Your task to perform on an android device: see tabs open on other devices in the chrome app Image 0: 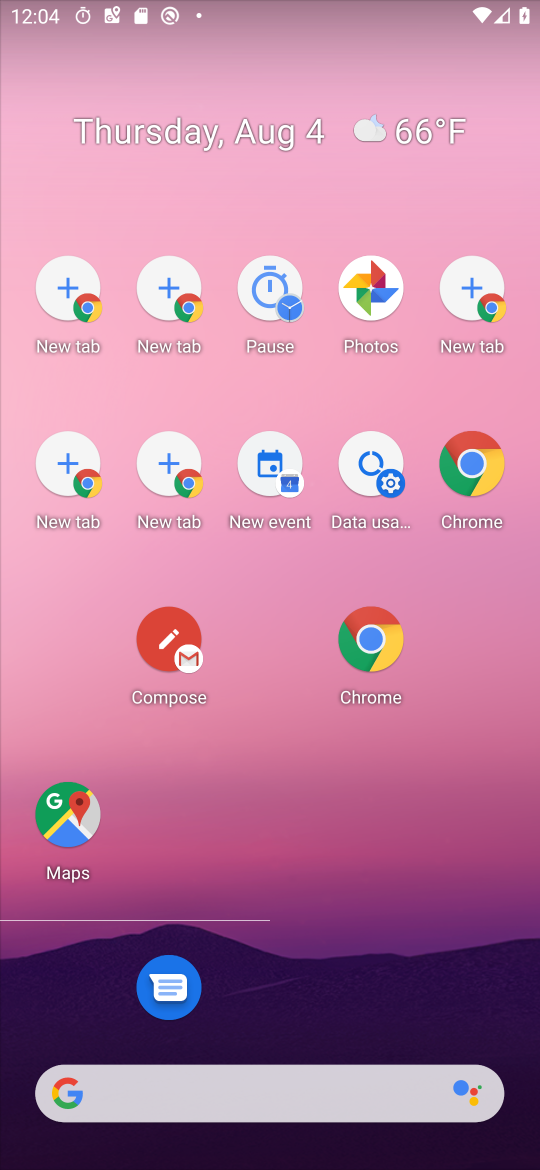
Step 0: press home button
Your task to perform on an android device: see tabs open on other devices in the chrome app Image 1: 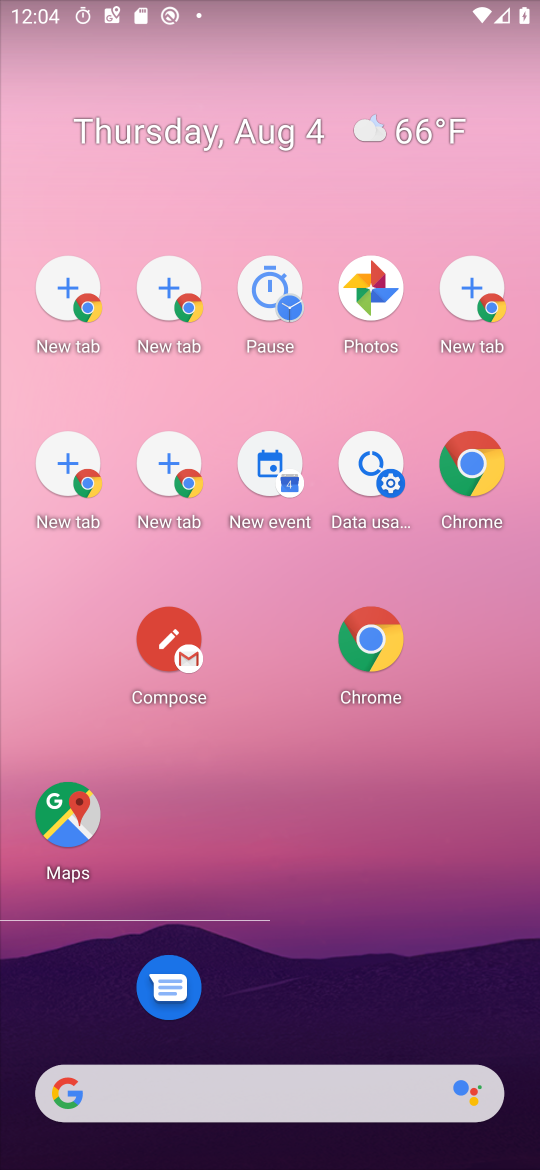
Step 1: press back button
Your task to perform on an android device: see tabs open on other devices in the chrome app Image 2: 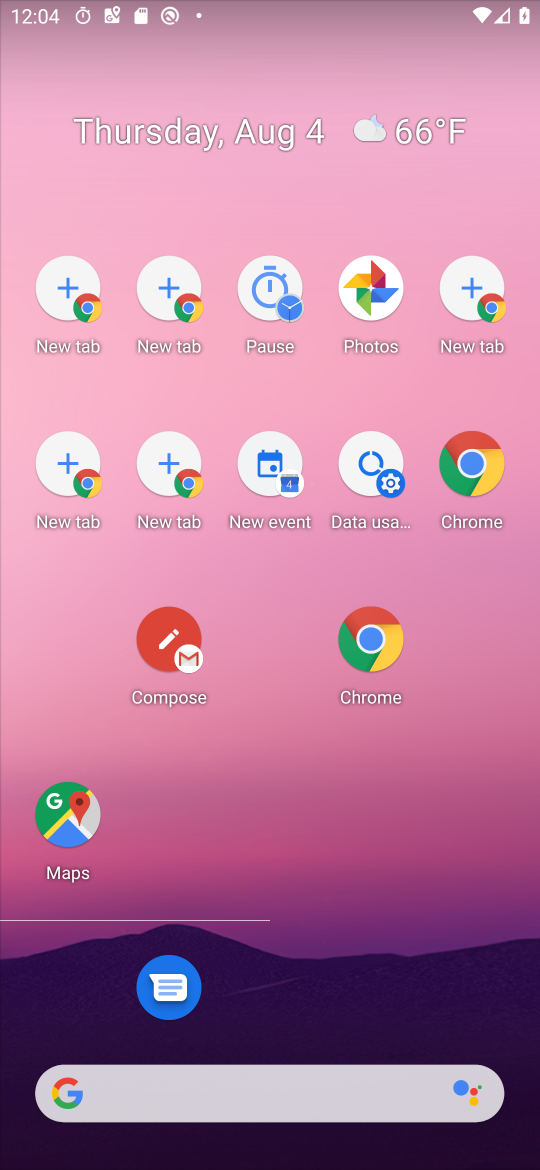
Step 2: press back button
Your task to perform on an android device: see tabs open on other devices in the chrome app Image 3: 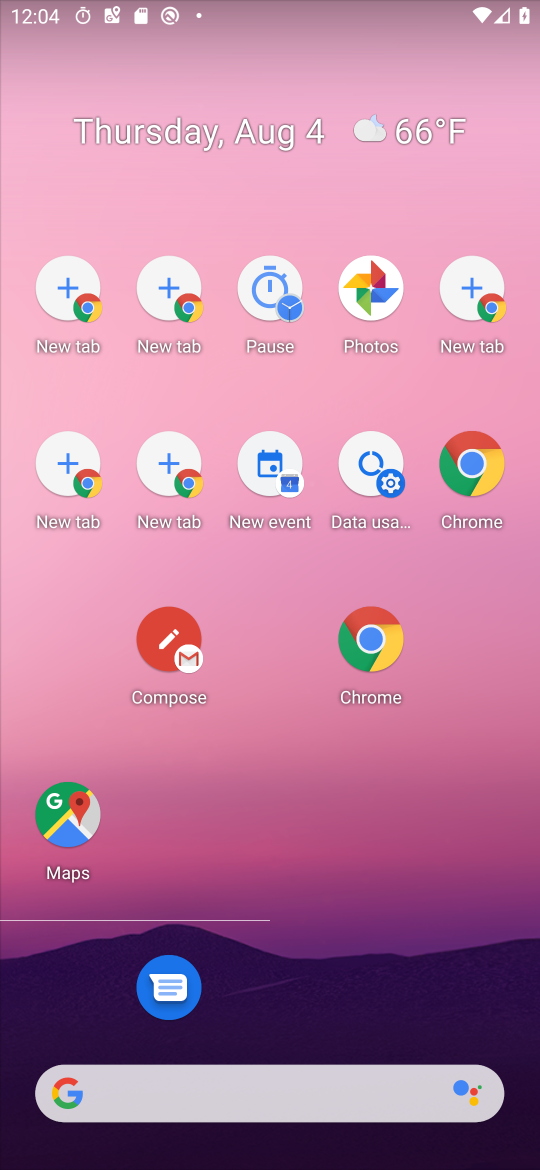
Step 3: press back button
Your task to perform on an android device: see tabs open on other devices in the chrome app Image 4: 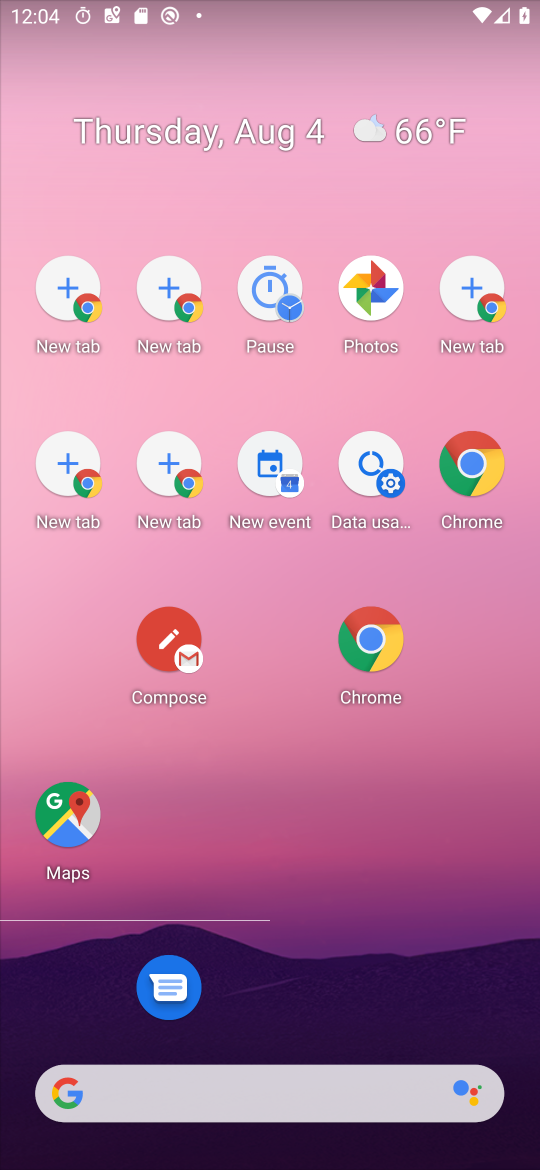
Step 4: drag from (303, 1081) to (255, 374)
Your task to perform on an android device: see tabs open on other devices in the chrome app Image 5: 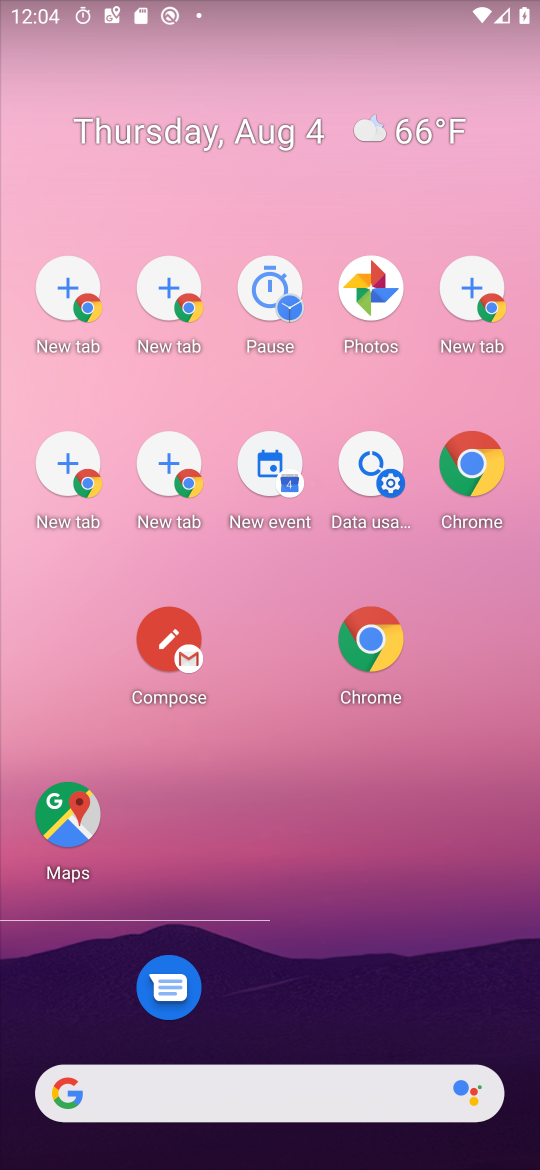
Step 5: drag from (475, 838) to (403, 496)
Your task to perform on an android device: see tabs open on other devices in the chrome app Image 6: 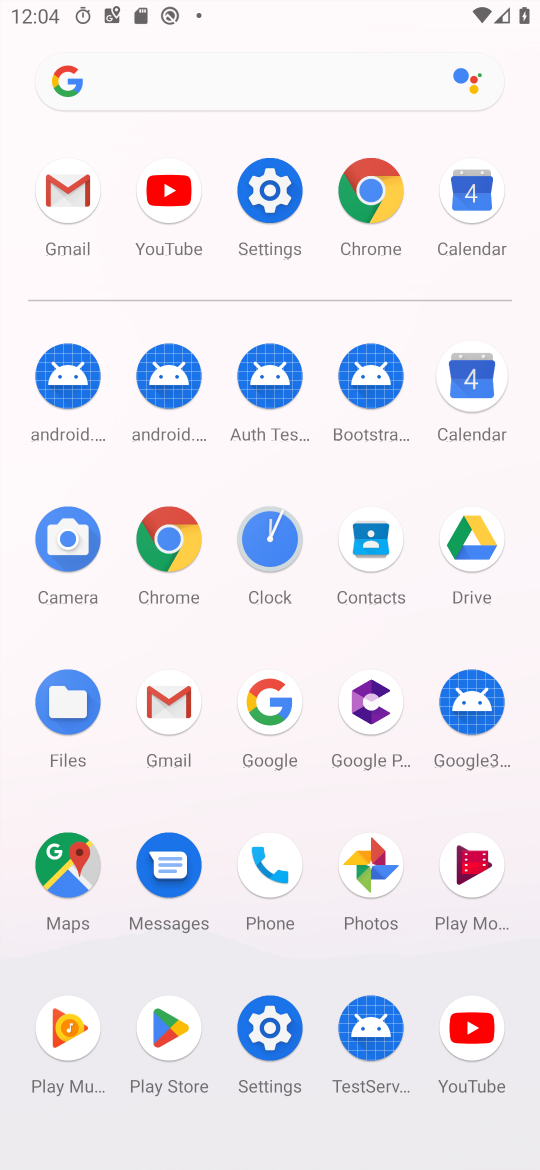
Step 6: click (359, 190)
Your task to perform on an android device: see tabs open on other devices in the chrome app Image 7: 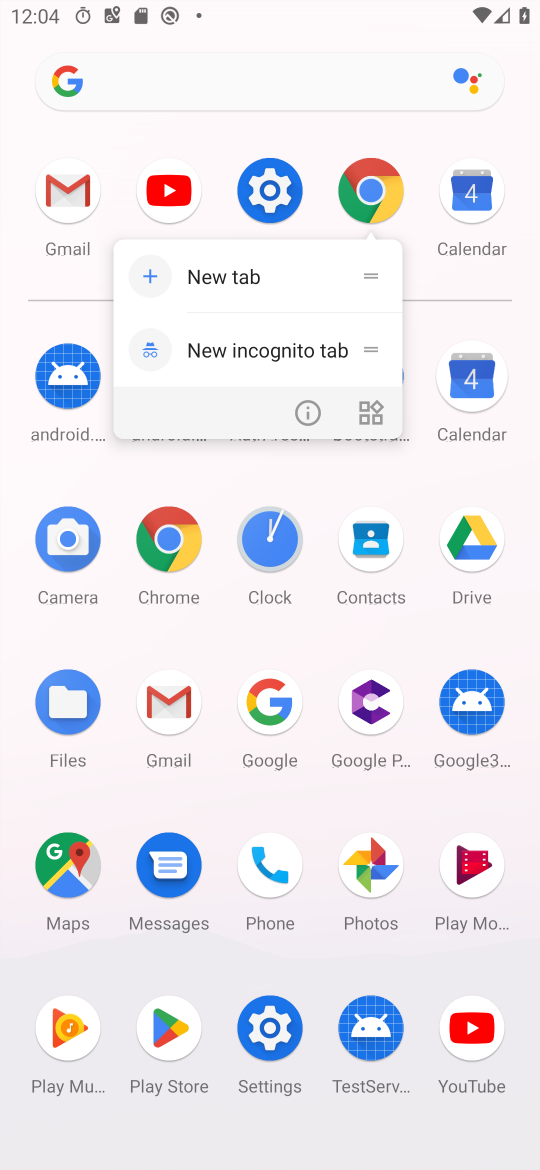
Step 7: click (356, 193)
Your task to perform on an android device: see tabs open on other devices in the chrome app Image 8: 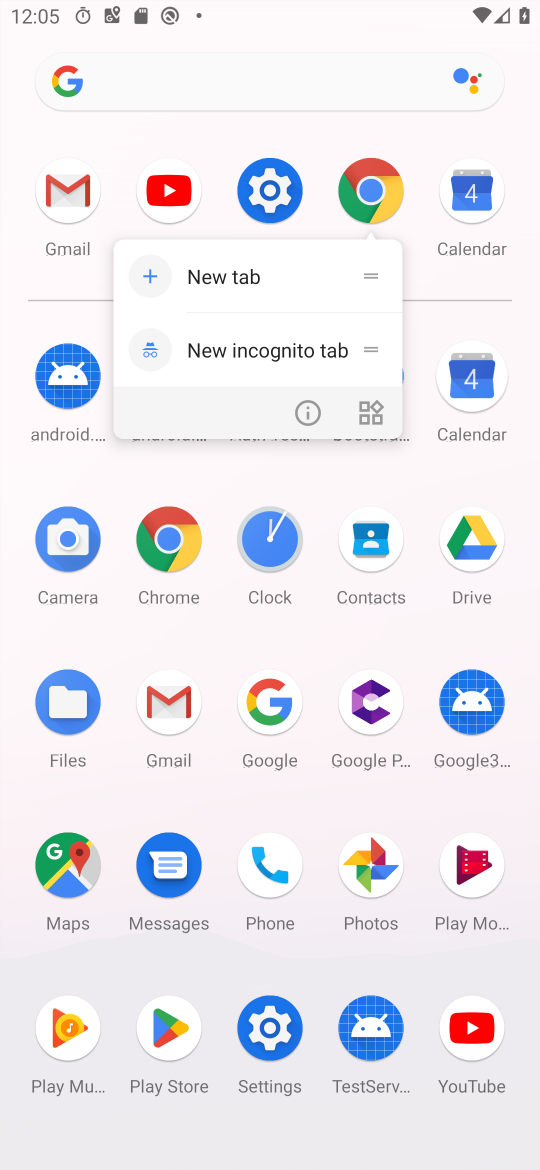
Step 8: click (213, 272)
Your task to perform on an android device: see tabs open on other devices in the chrome app Image 9: 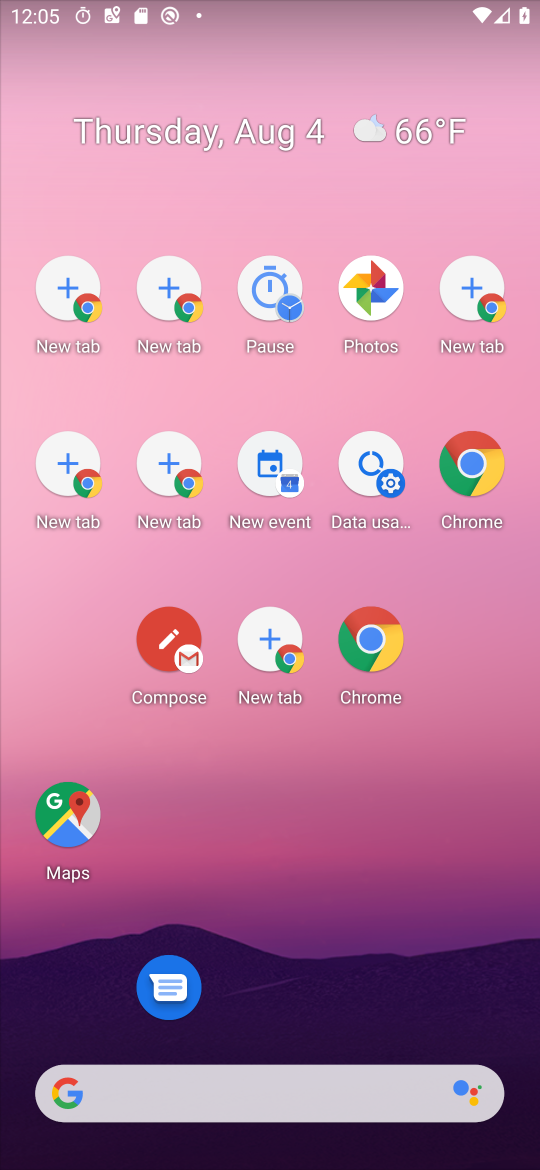
Step 9: drag from (369, 913) to (215, 393)
Your task to perform on an android device: see tabs open on other devices in the chrome app Image 10: 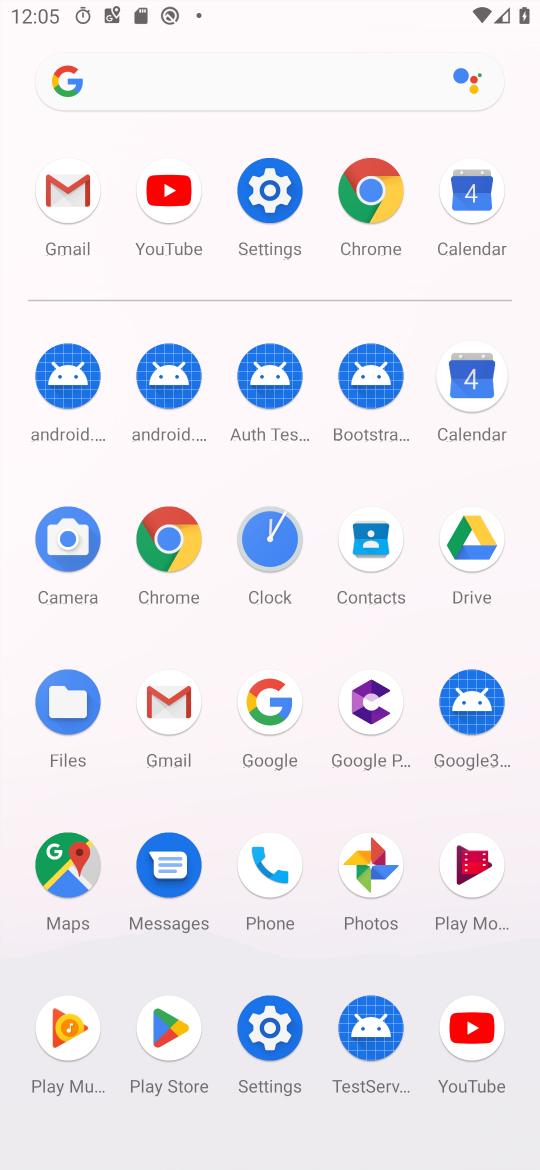
Step 10: click (365, 186)
Your task to perform on an android device: see tabs open on other devices in the chrome app Image 11: 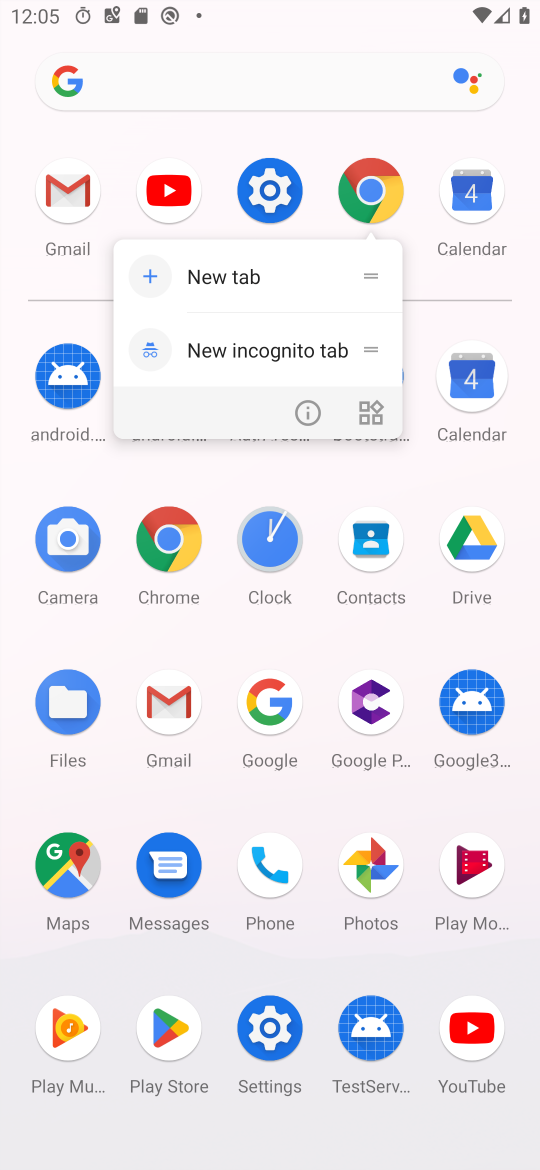
Step 11: click (240, 271)
Your task to perform on an android device: see tabs open on other devices in the chrome app Image 12: 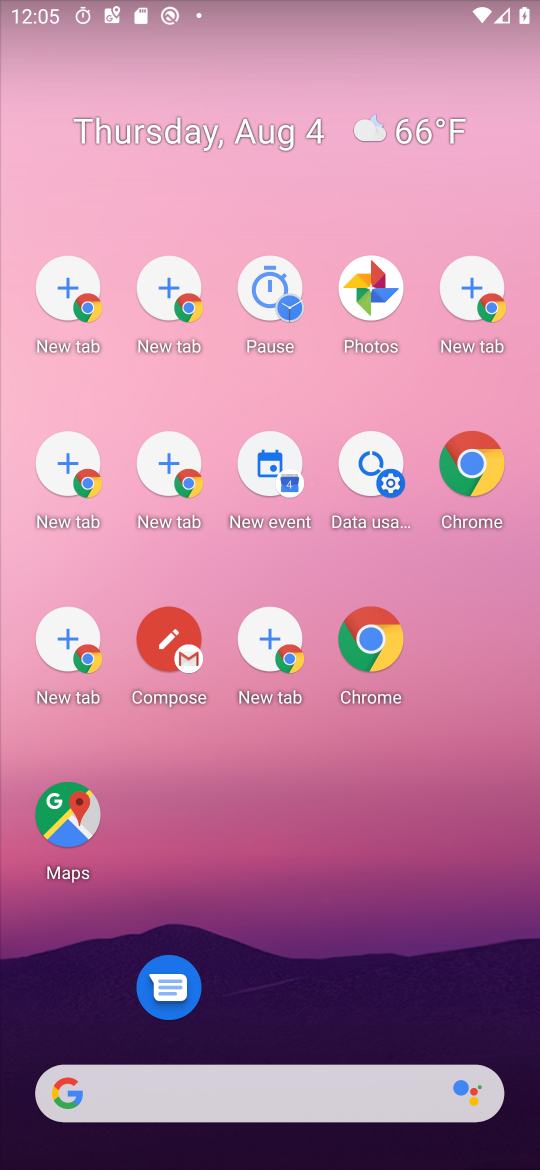
Step 12: drag from (305, 1002) to (288, 260)
Your task to perform on an android device: see tabs open on other devices in the chrome app Image 13: 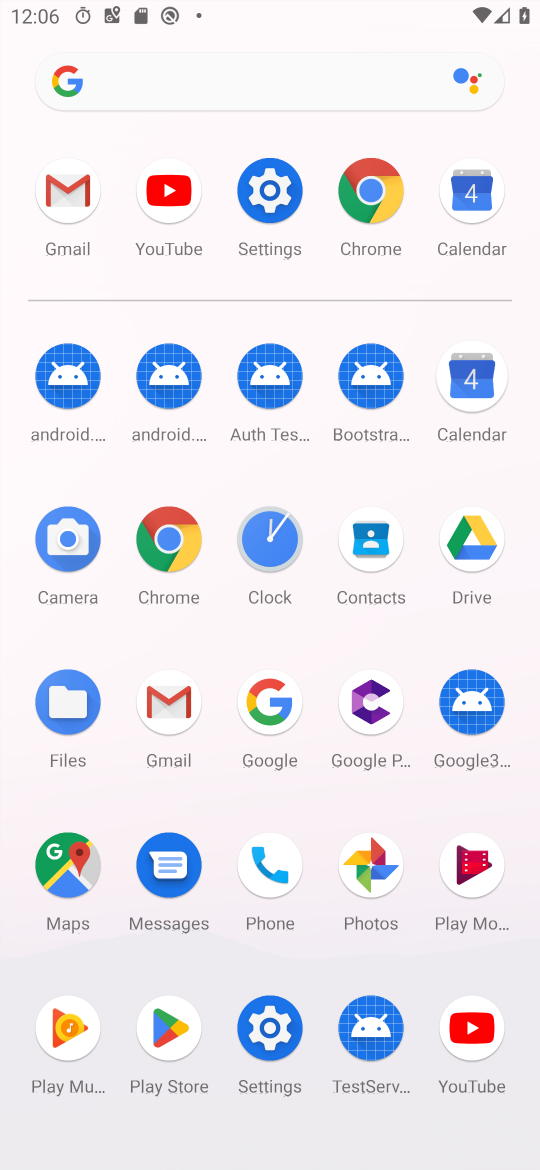
Step 13: click (370, 184)
Your task to perform on an android device: see tabs open on other devices in the chrome app Image 14: 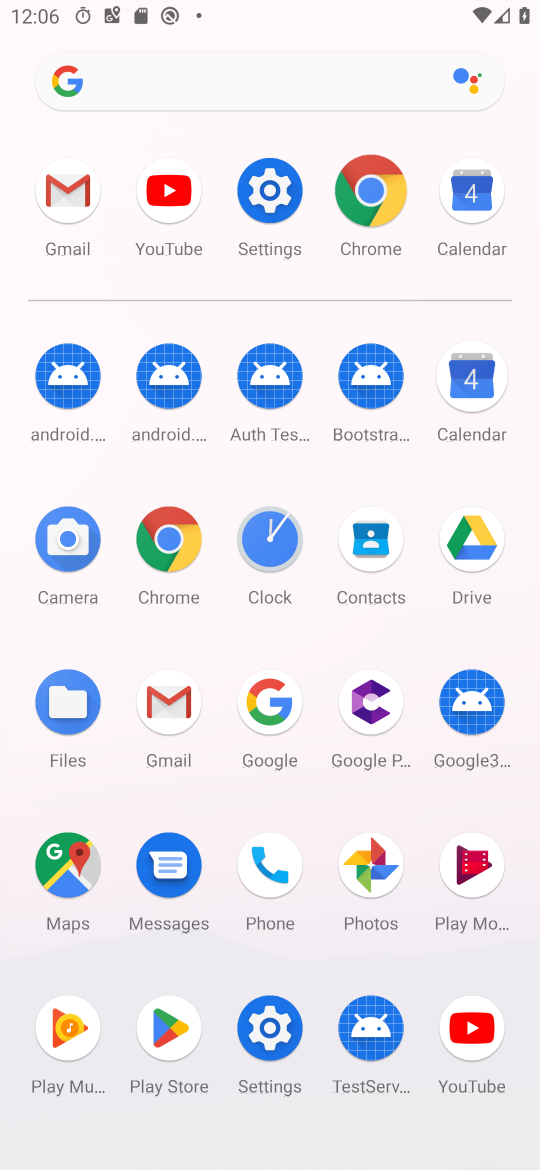
Step 14: click (370, 184)
Your task to perform on an android device: see tabs open on other devices in the chrome app Image 15: 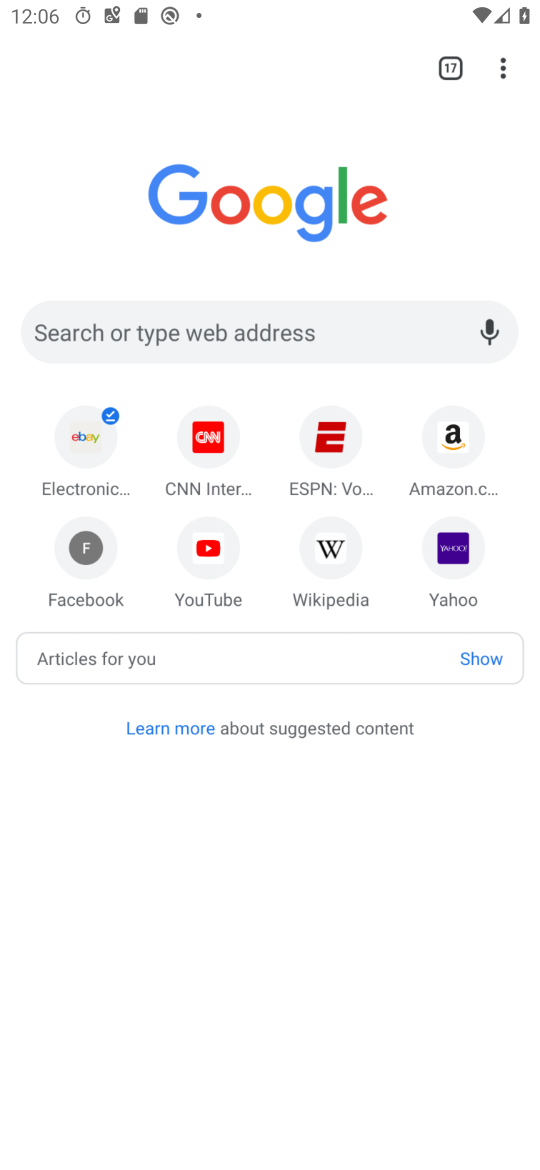
Step 15: click (372, 185)
Your task to perform on an android device: see tabs open on other devices in the chrome app Image 16: 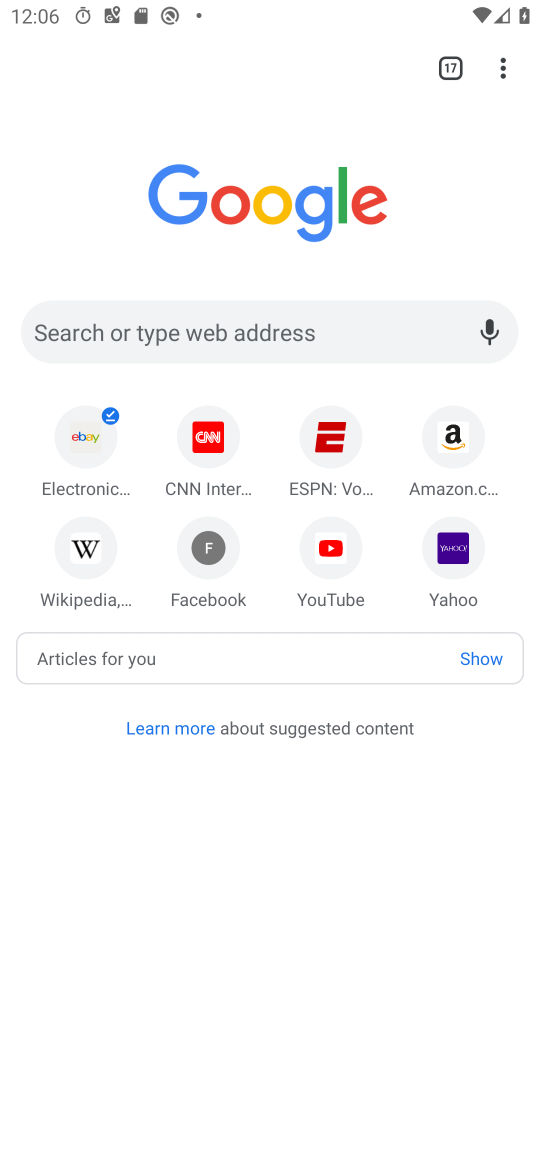
Step 16: drag from (504, 65) to (266, 143)
Your task to perform on an android device: see tabs open on other devices in the chrome app Image 17: 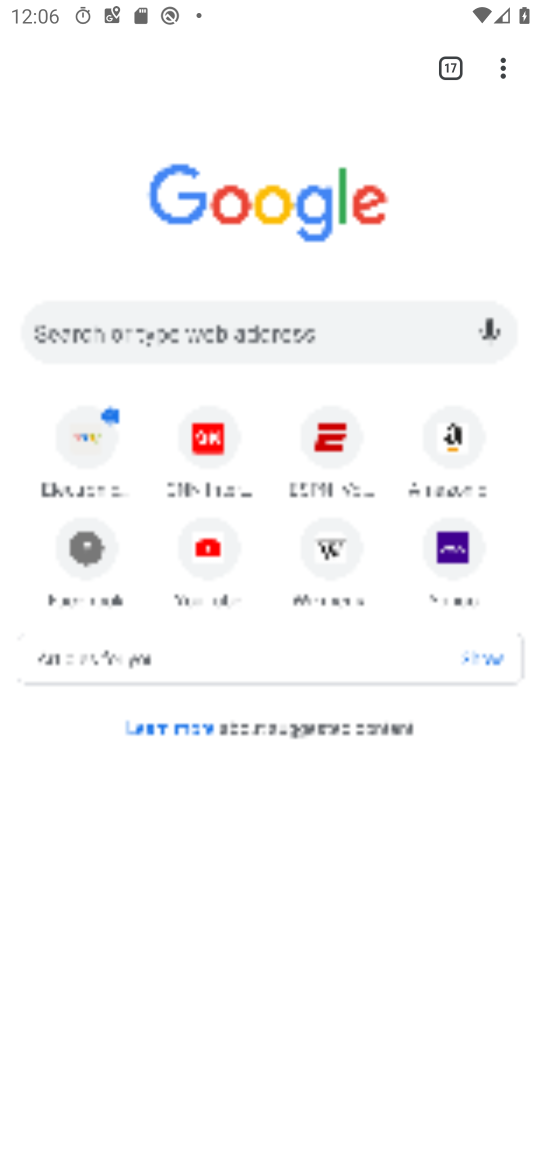
Step 17: click (259, 307)
Your task to perform on an android device: see tabs open on other devices in the chrome app Image 18: 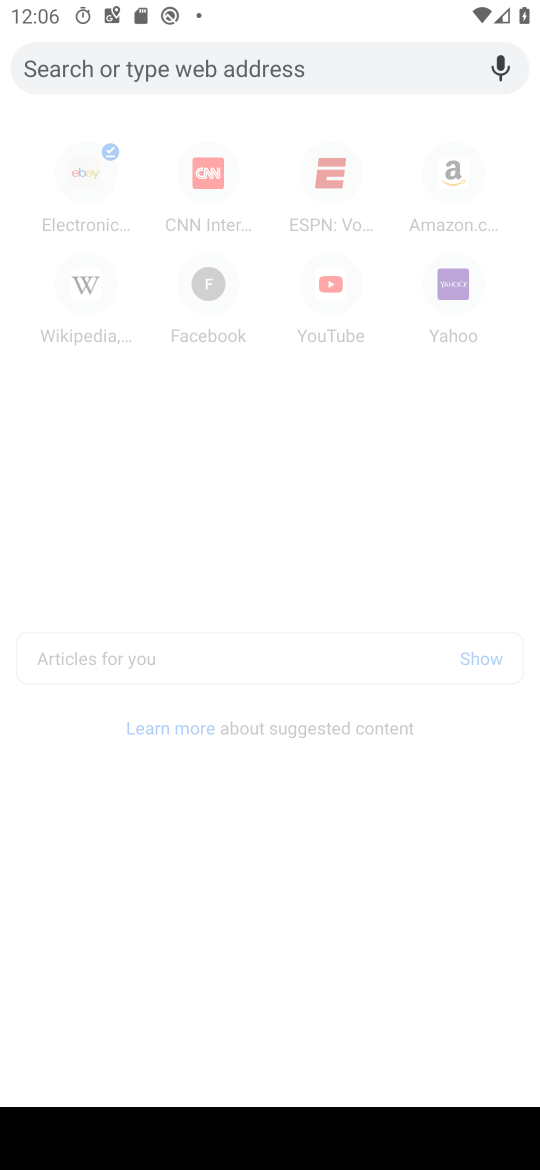
Step 18: drag from (494, 54) to (442, 110)
Your task to perform on an android device: see tabs open on other devices in the chrome app Image 19: 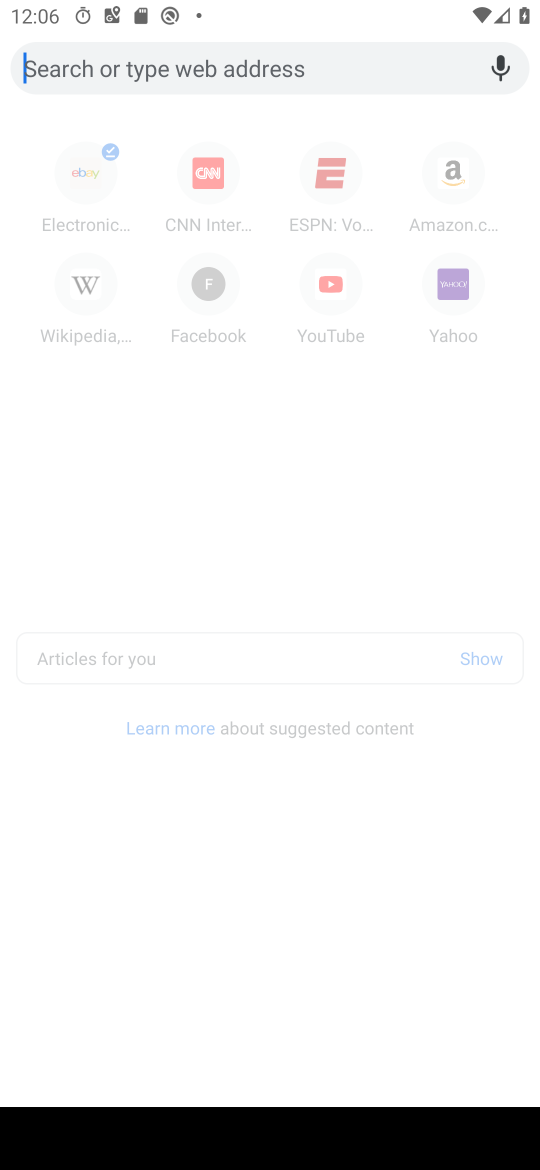
Step 19: click (434, 124)
Your task to perform on an android device: see tabs open on other devices in the chrome app Image 20: 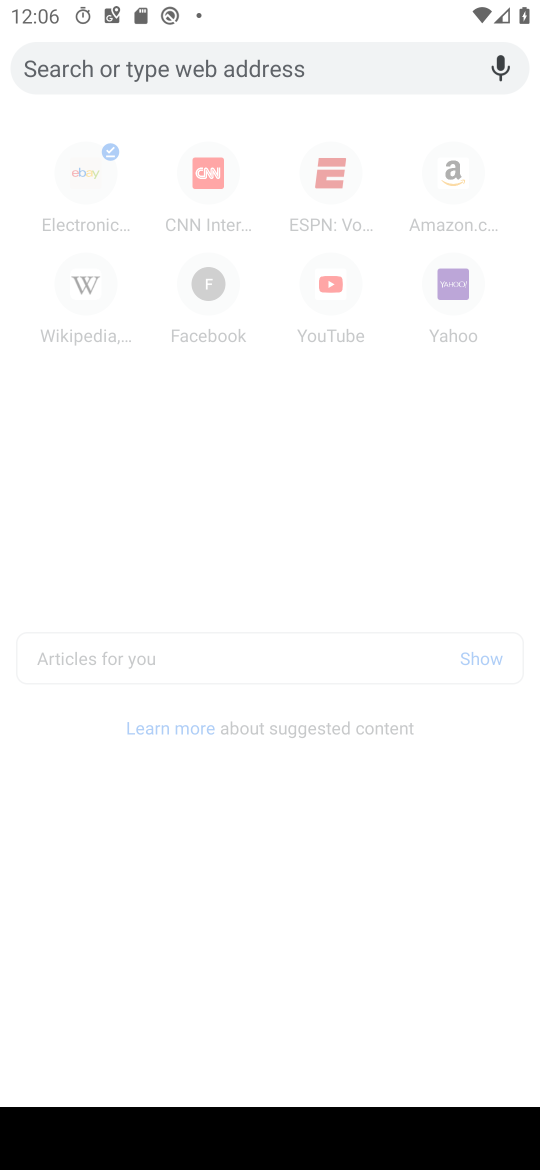
Step 20: task complete